Your task to perform on an android device: turn on the 24-hour format for clock Image 0: 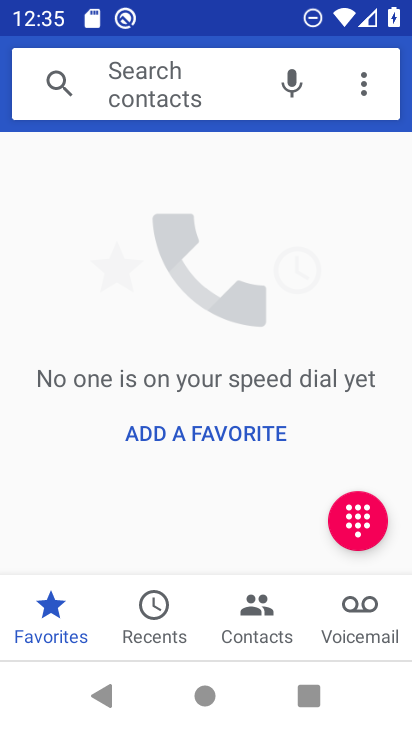
Step 0: press home button
Your task to perform on an android device: turn on the 24-hour format for clock Image 1: 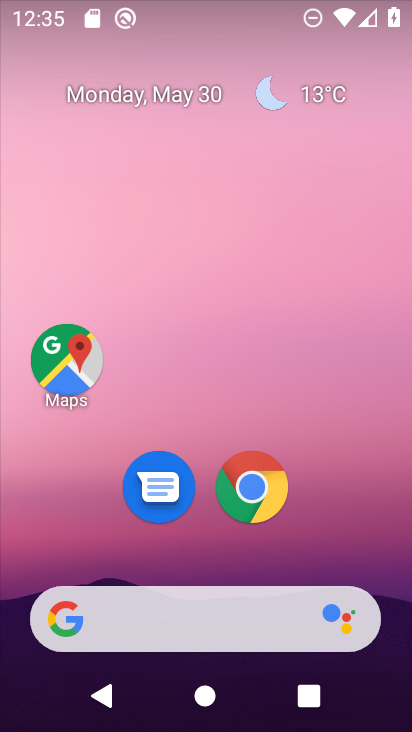
Step 1: drag from (390, 678) to (302, 95)
Your task to perform on an android device: turn on the 24-hour format for clock Image 2: 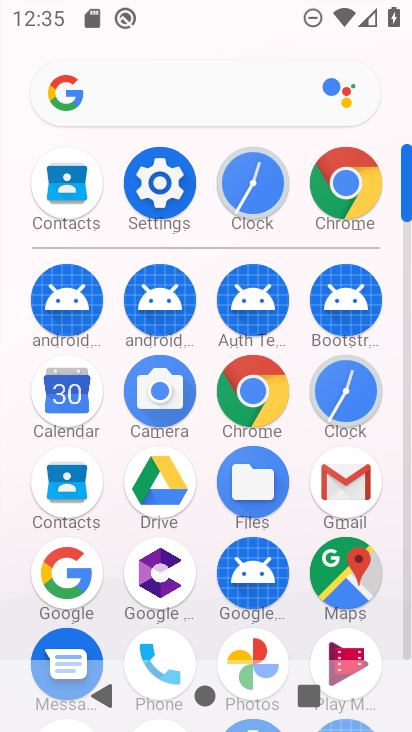
Step 2: click (318, 383)
Your task to perform on an android device: turn on the 24-hour format for clock Image 3: 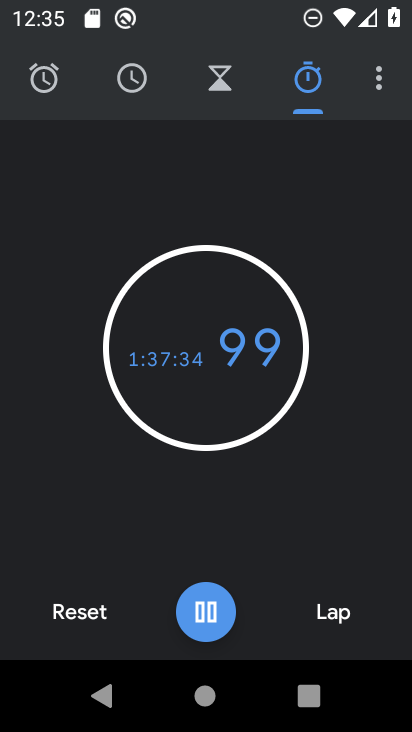
Step 3: click (373, 71)
Your task to perform on an android device: turn on the 24-hour format for clock Image 4: 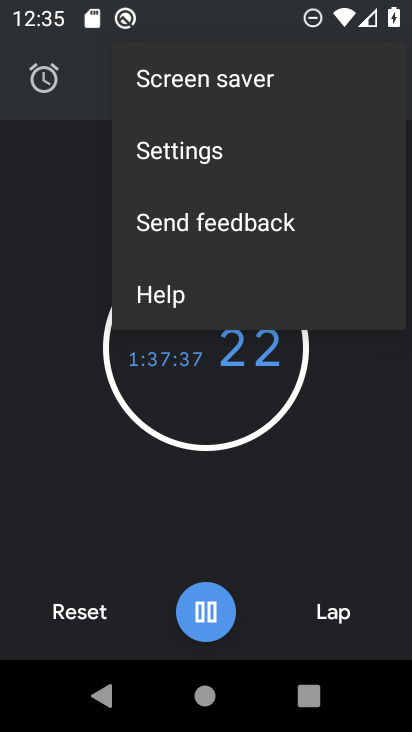
Step 4: click (186, 159)
Your task to perform on an android device: turn on the 24-hour format for clock Image 5: 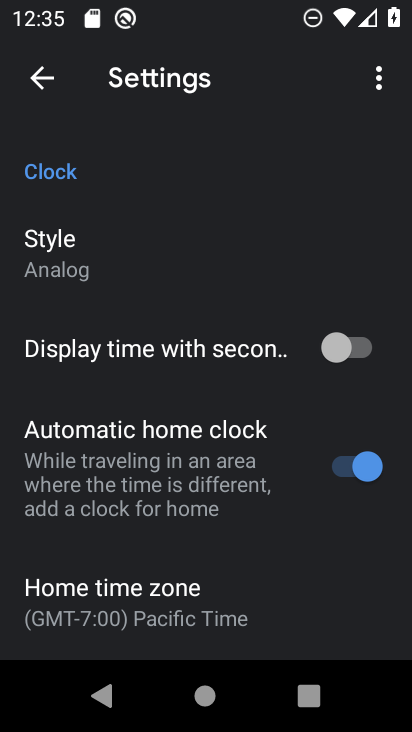
Step 5: drag from (239, 609) to (152, 224)
Your task to perform on an android device: turn on the 24-hour format for clock Image 6: 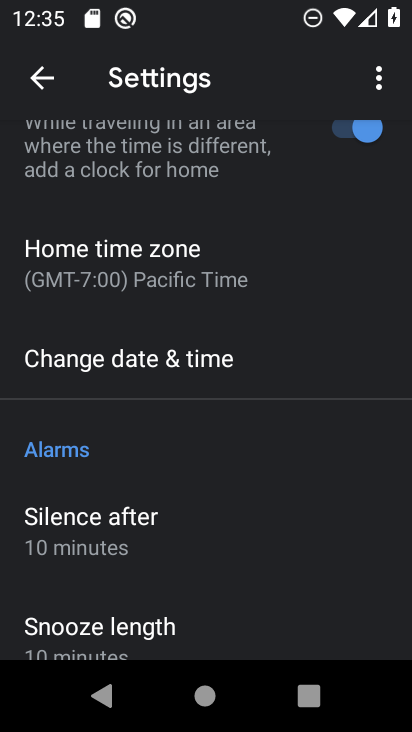
Step 6: click (86, 365)
Your task to perform on an android device: turn on the 24-hour format for clock Image 7: 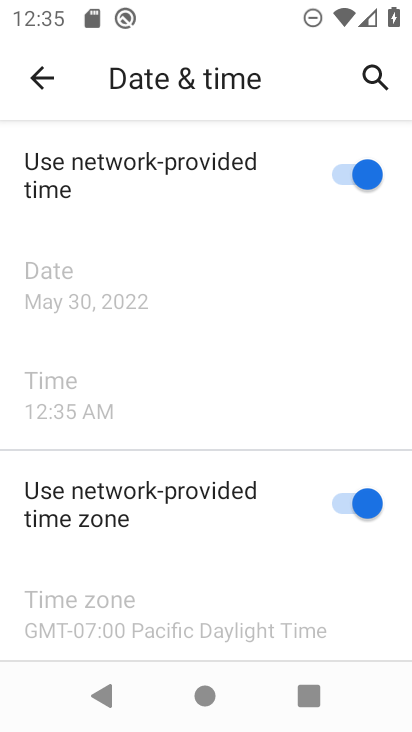
Step 7: drag from (196, 495) to (155, 238)
Your task to perform on an android device: turn on the 24-hour format for clock Image 8: 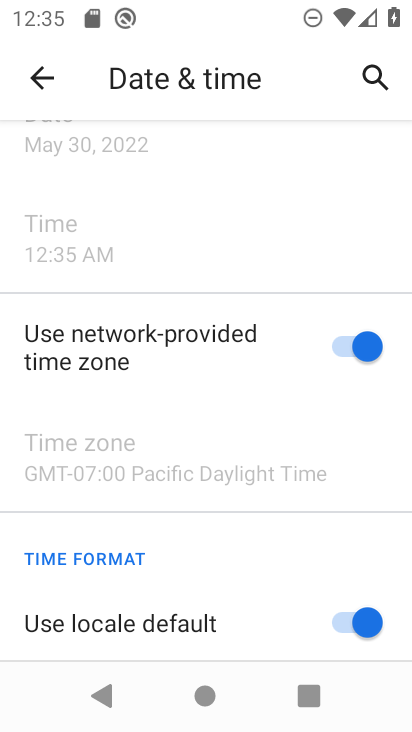
Step 8: drag from (228, 609) to (206, 362)
Your task to perform on an android device: turn on the 24-hour format for clock Image 9: 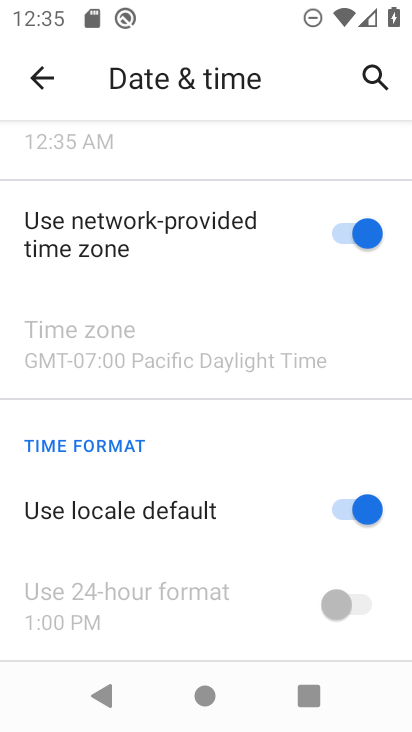
Step 9: click (330, 515)
Your task to perform on an android device: turn on the 24-hour format for clock Image 10: 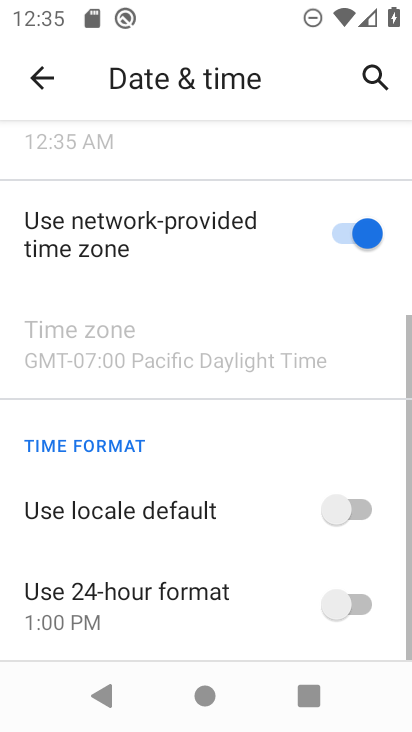
Step 10: click (360, 604)
Your task to perform on an android device: turn on the 24-hour format for clock Image 11: 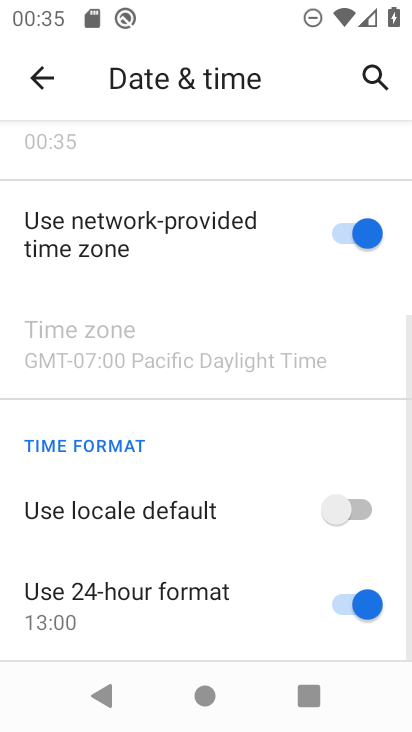
Step 11: task complete